Your task to perform on an android device: Open eBay Image 0: 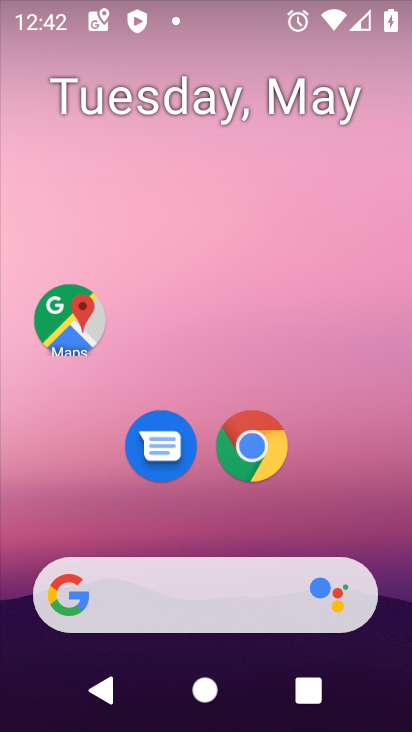
Step 0: click (268, 437)
Your task to perform on an android device: Open eBay Image 1: 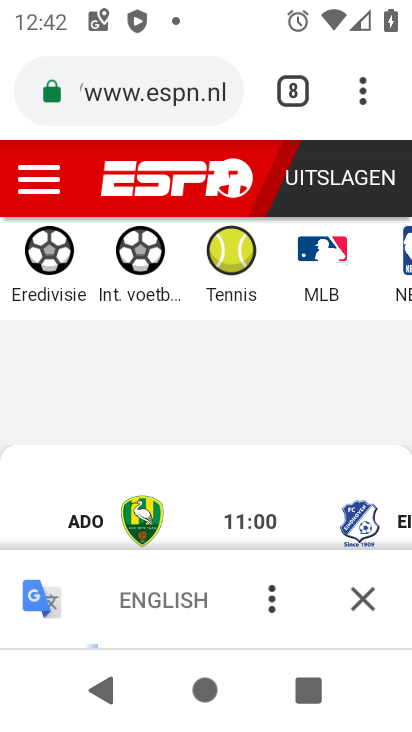
Step 1: click (363, 87)
Your task to perform on an android device: Open eBay Image 2: 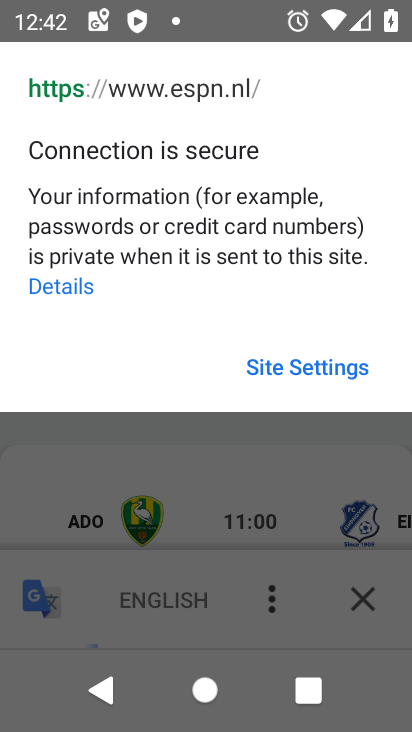
Step 2: click (311, 370)
Your task to perform on an android device: Open eBay Image 3: 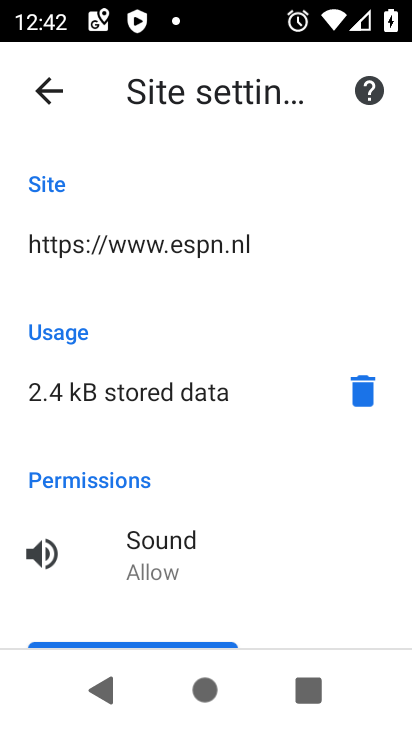
Step 3: press back button
Your task to perform on an android device: Open eBay Image 4: 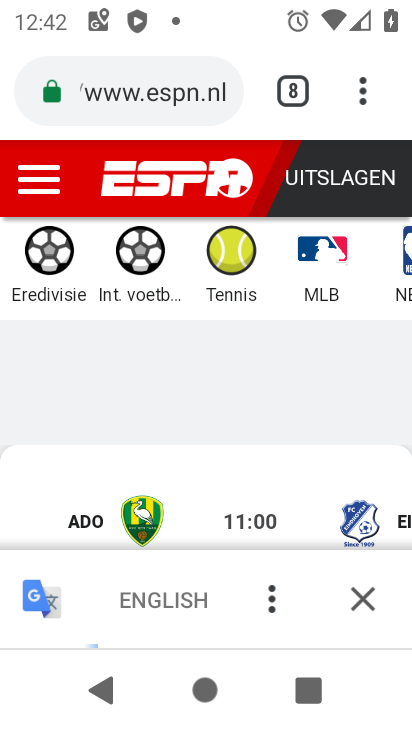
Step 4: click (372, 89)
Your task to perform on an android device: Open eBay Image 5: 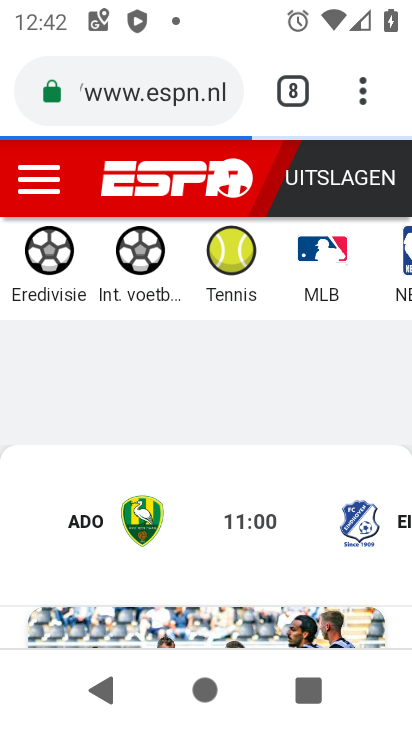
Step 5: click (366, 82)
Your task to perform on an android device: Open eBay Image 6: 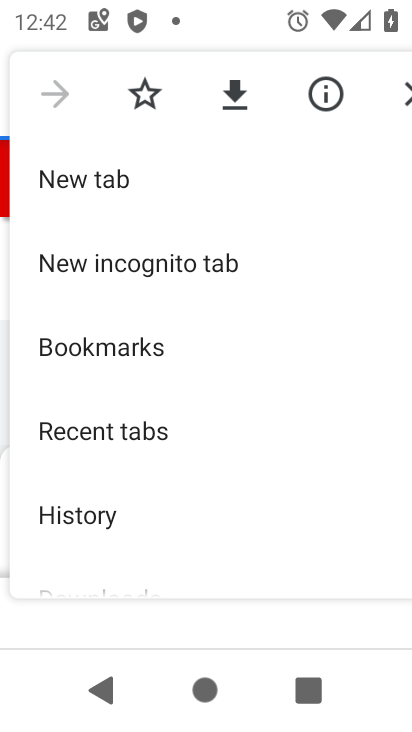
Step 6: click (114, 171)
Your task to perform on an android device: Open eBay Image 7: 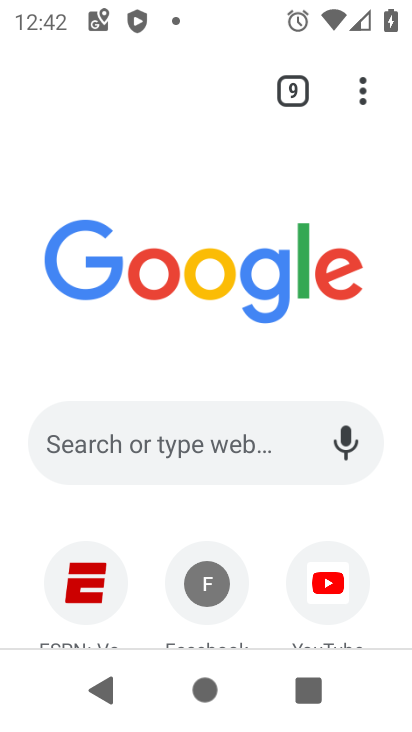
Step 7: drag from (226, 517) to (276, 242)
Your task to perform on an android device: Open eBay Image 8: 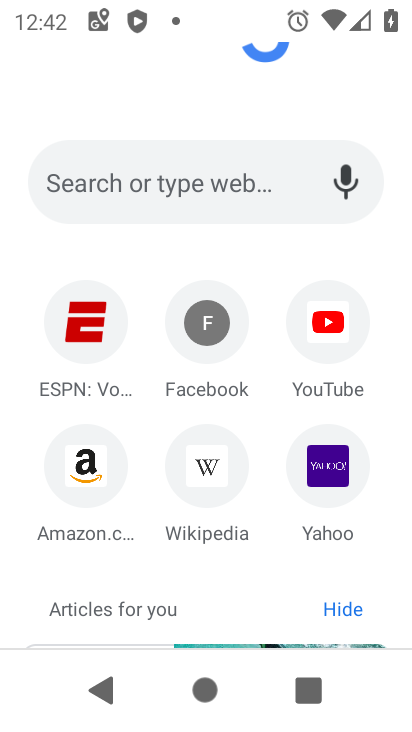
Step 8: click (168, 175)
Your task to perform on an android device: Open eBay Image 9: 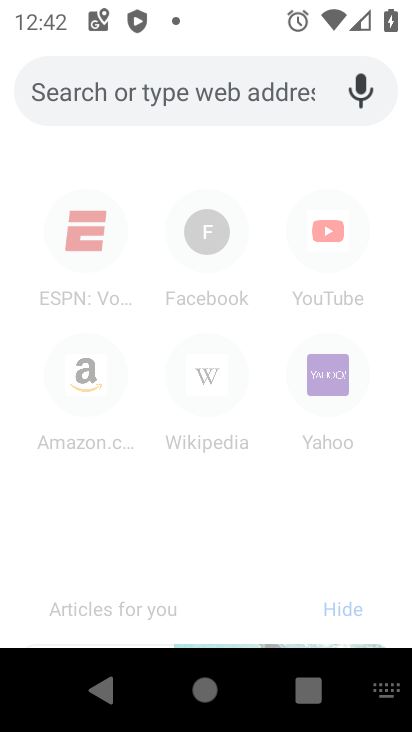
Step 9: type "eBay"
Your task to perform on an android device: Open eBay Image 10: 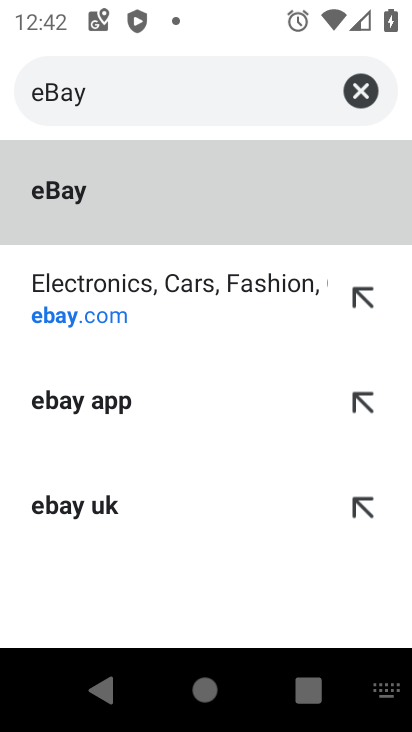
Step 10: click (192, 212)
Your task to perform on an android device: Open eBay Image 11: 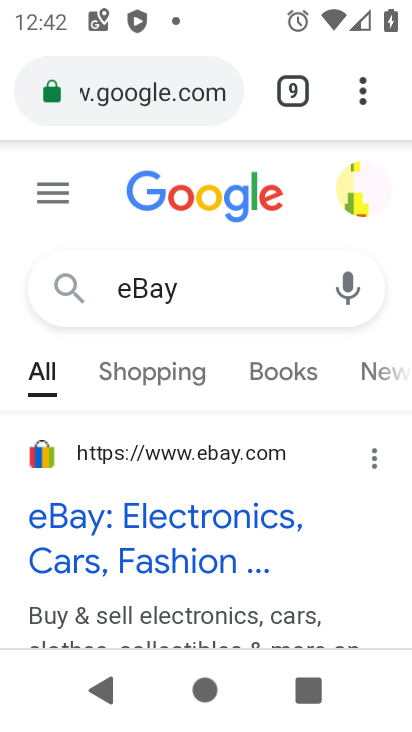
Step 11: task complete